Your task to perform on an android device: Show the shopping cart on newegg. Add "bose soundsport free" to the cart on newegg Image 0: 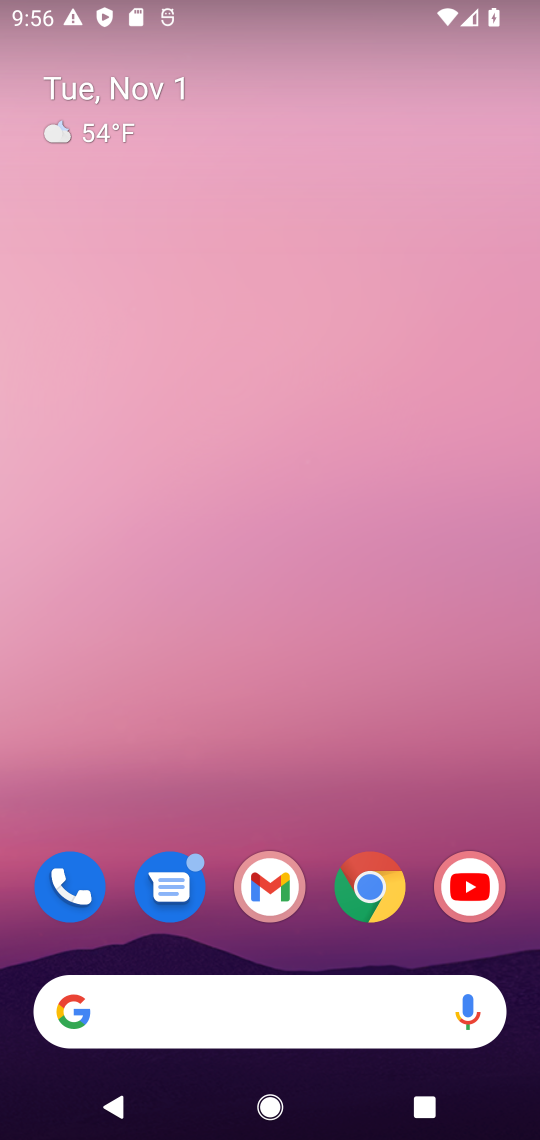
Step 0: drag from (323, 943) to (321, 195)
Your task to perform on an android device: Show the shopping cart on newegg. Add "bose soundsport free" to the cart on newegg Image 1: 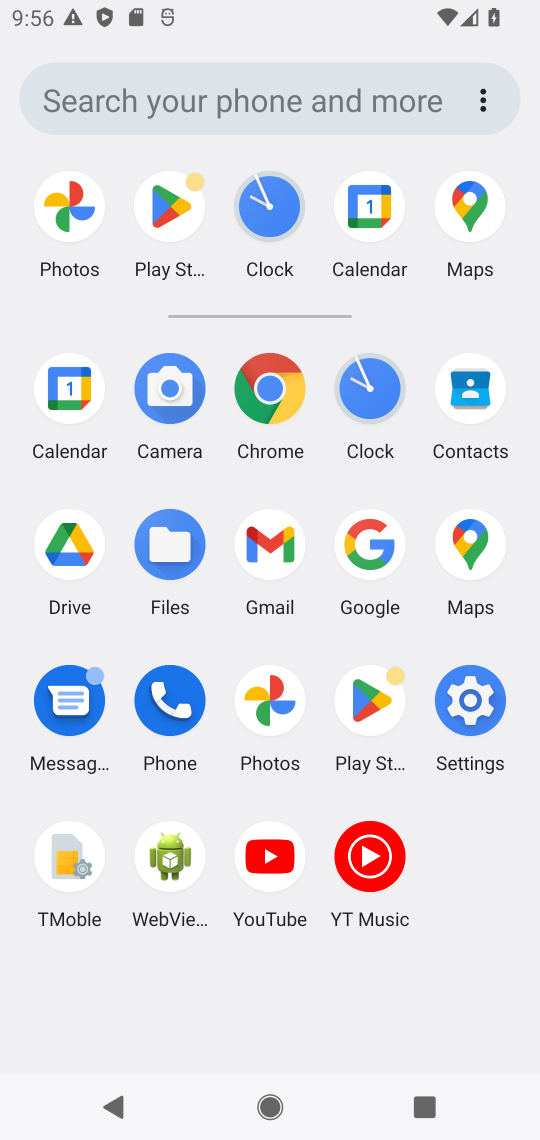
Step 1: click (397, 538)
Your task to perform on an android device: Show the shopping cart on newegg. Add "bose soundsport free" to the cart on newegg Image 2: 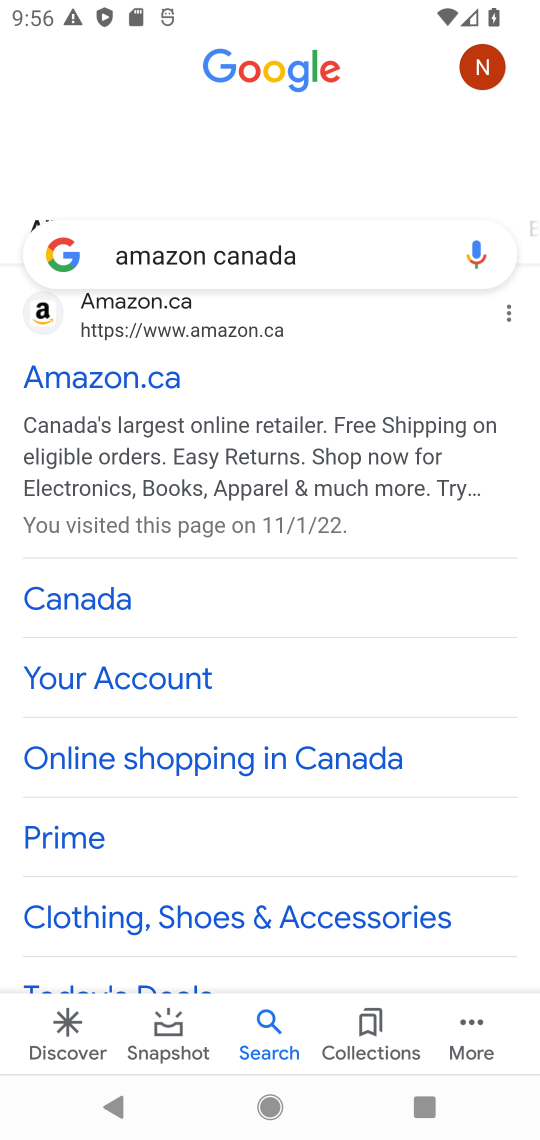
Step 2: click (80, 395)
Your task to perform on an android device: Show the shopping cart on newegg. Add "bose soundsport free" to the cart on newegg Image 3: 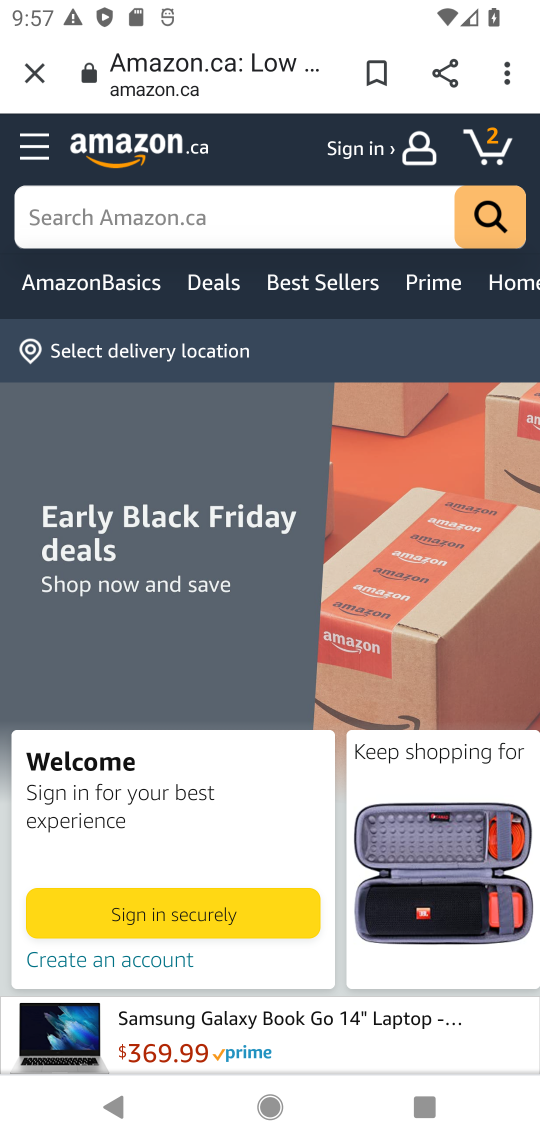
Step 3: press back button
Your task to perform on an android device: Show the shopping cart on newegg. Add "bose soundsport free" to the cart on newegg Image 4: 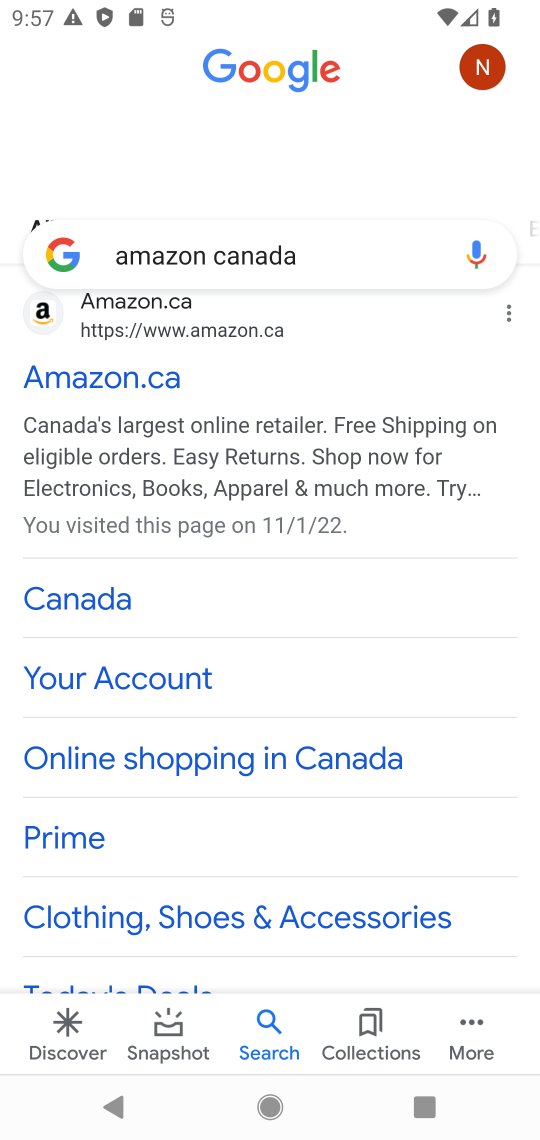
Step 4: press back button
Your task to perform on an android device: Show the shopping cart on newegg. Add "bose soundsport free" to the cart on newegg Image 5: 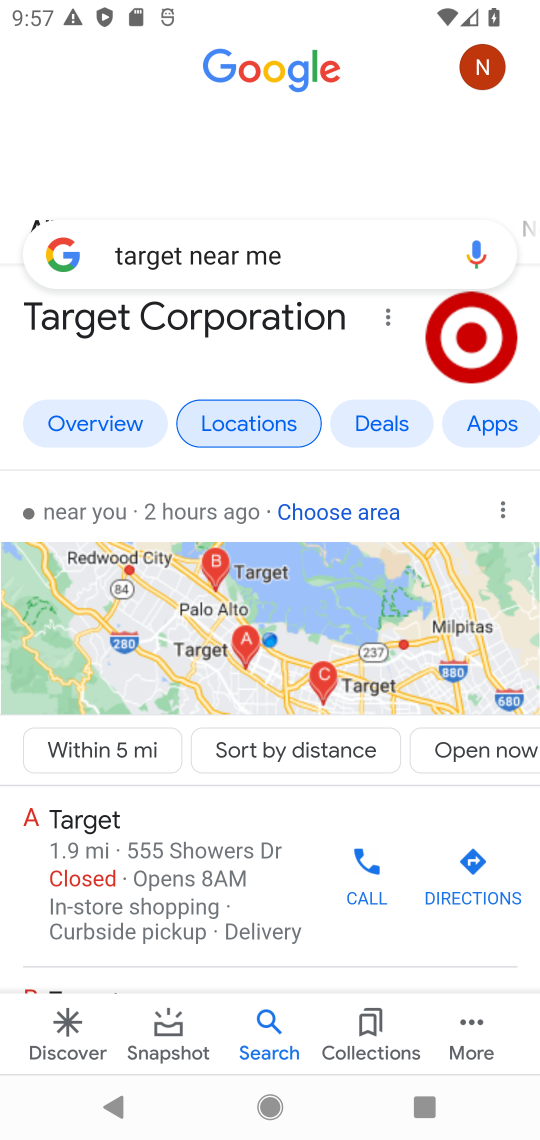
Step 5: click (354, 251)
Your task to perform on an android device: Show the shopping cart on newegg. Add "bose soundsport free" to the cart on newegg Image 6: 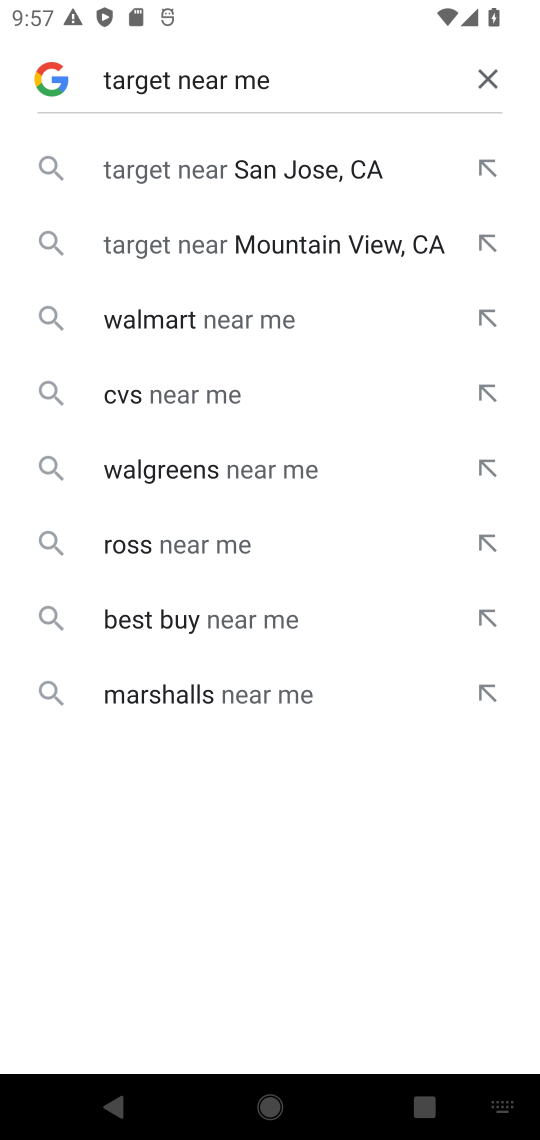
Step 6: click (491, 84)
Your task to perform on an android device: Show the shopping cart on newegg. Add "bose soundsport free" to the cart on newegg Image 7: 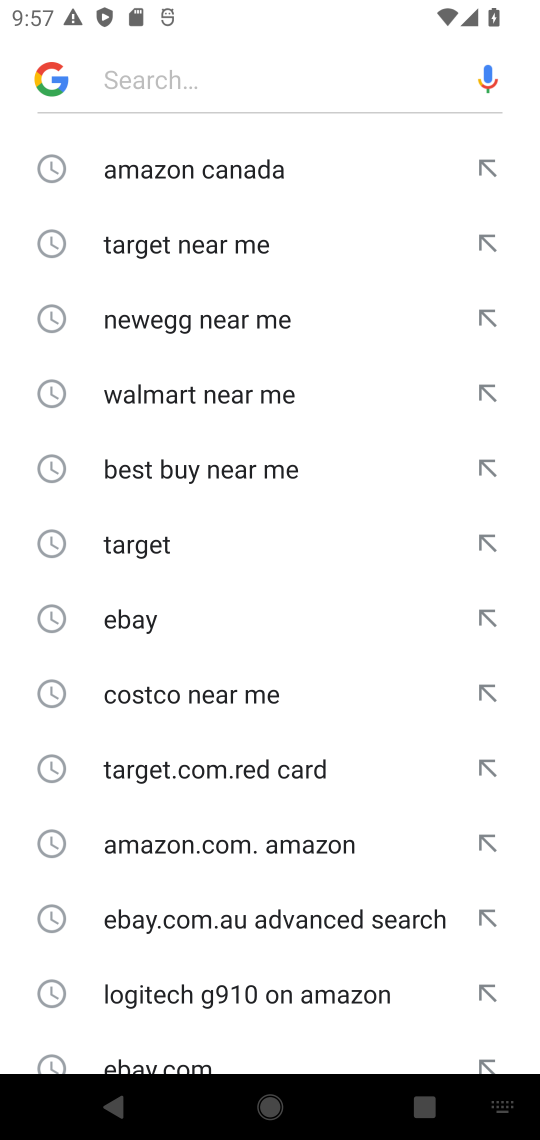
Step 7: click (178, 308)
Your task to perform on an android device: Show the shopping cart on newegg. Add "bose soundsport free" to the cart on newegg Image 8: 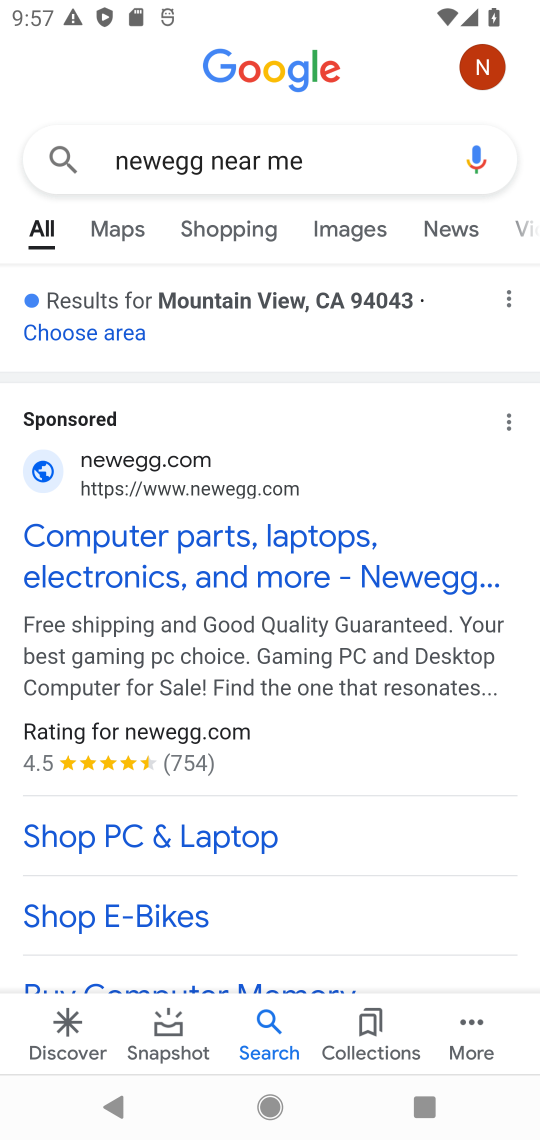
Step 8: drag from (156, 670) to (169, 410)
Your task to perform on an android device: Show the shopping cart on newegg. Add "bose soundsport free" to the cart on newegg Image 9: 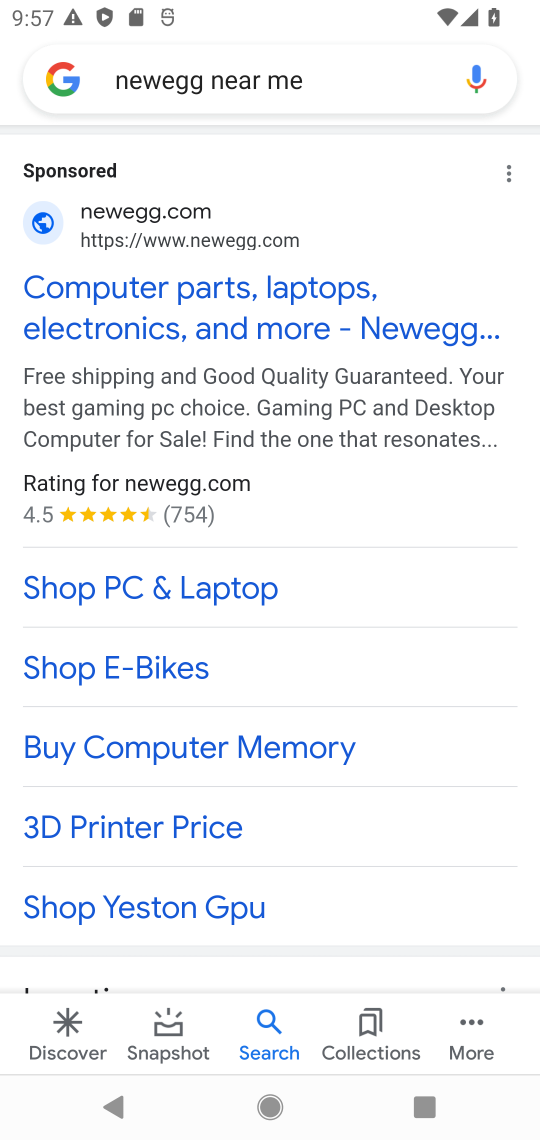
Step 9: drag from (168, 821) to (278, 422)
Your task to perform on an android device: Show the shopping cart on newegg. Add "bose soundsport free" to the cart on newegg Image 10: 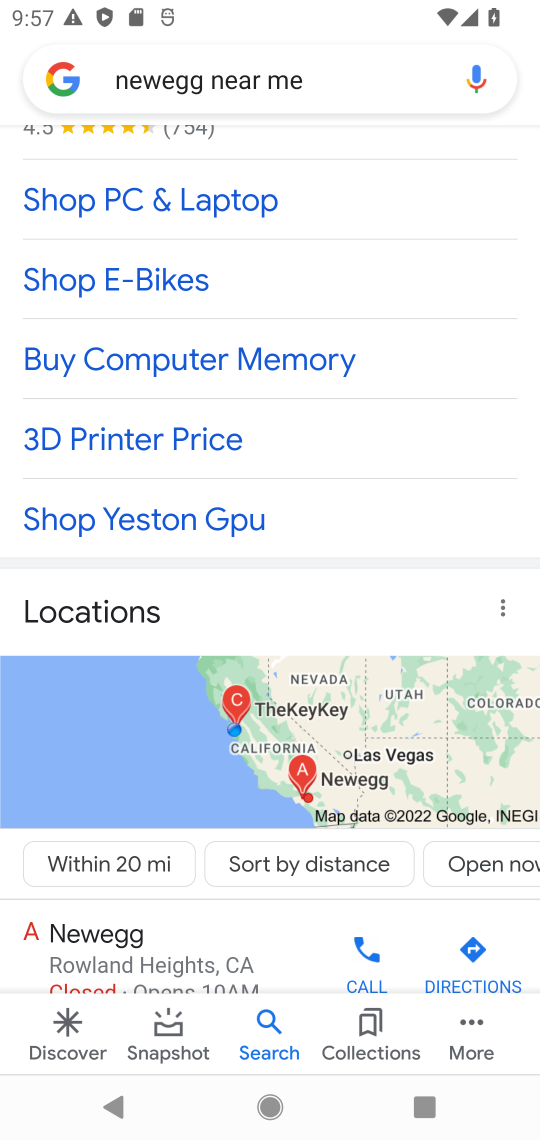
Step 10: drag from (268, 872) to (216, 350)
Your task to perform on an android device: Show the shopping cart on newegg. Add "bose soundsport free" to the cart on newegg Image 11: 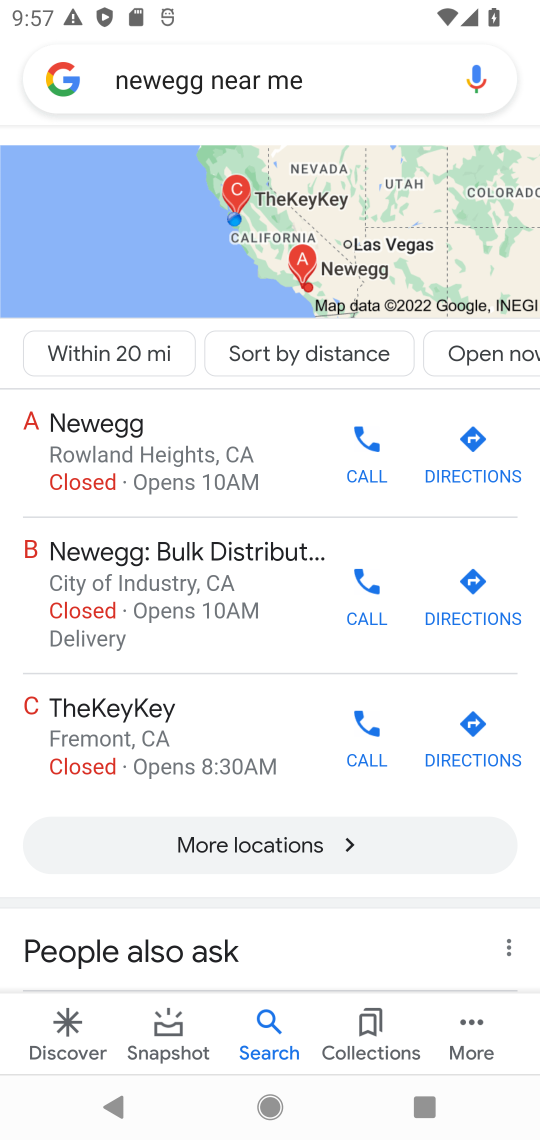
Step 11: drag from (150, 839) to (184, 319)
Your task to perform on an android device: Show the shopping cart on newegg. Add "bose soundsport free" to the cart on newegg Image 12: 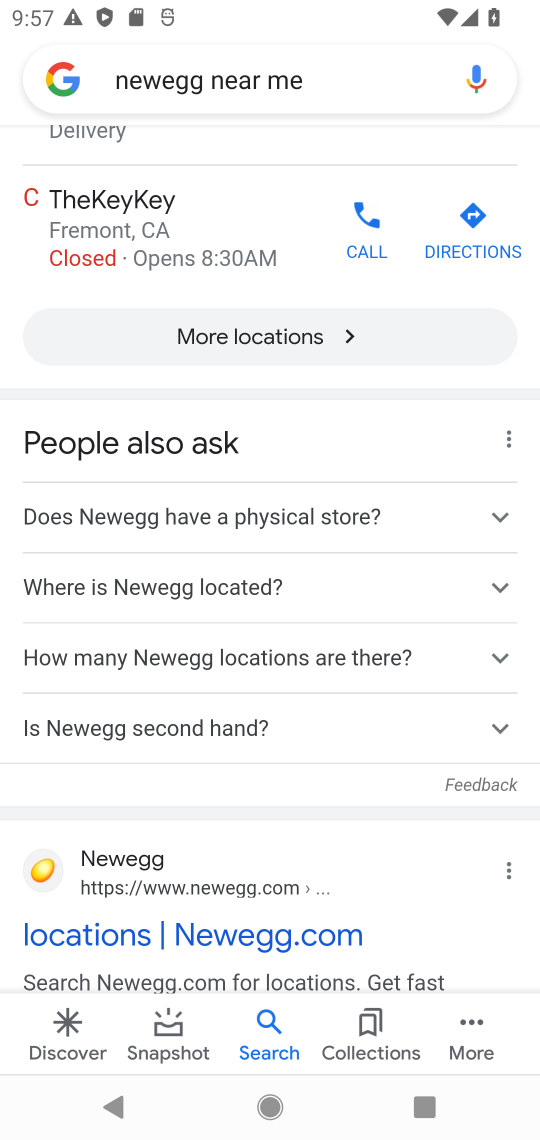
Step 12: click (33, 861)
Your task to perform on an android device: Show the shopping cart on newegg. Add "bose soundsport free" to the cart on newegg Image 13: 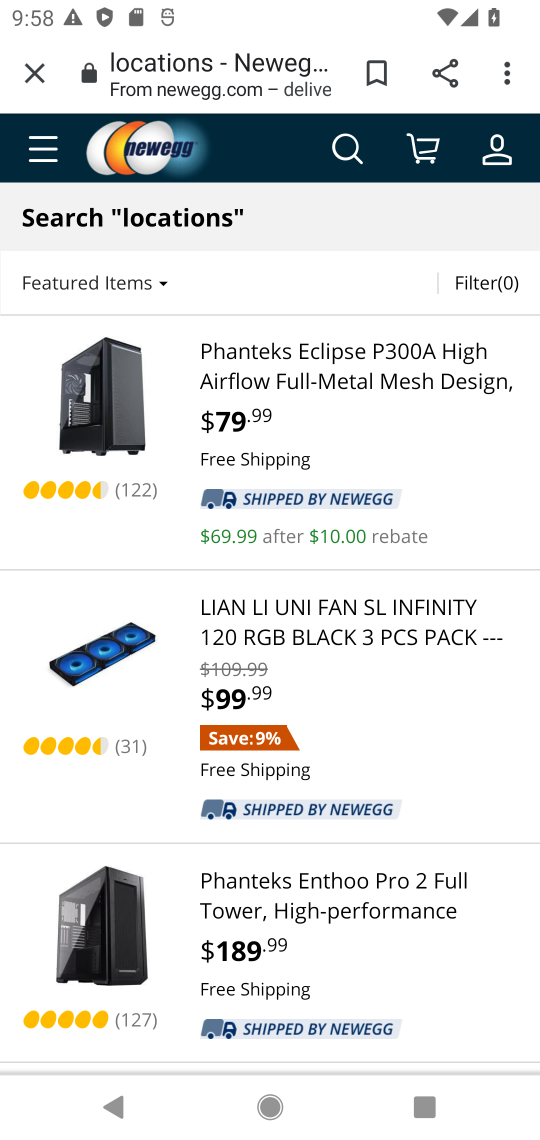
Step 13: click (350, 158)
Your task to perform on an android device: Show the shopping cart on newegg. Add "bose soundsport free" to the cart on newegg Image 14: 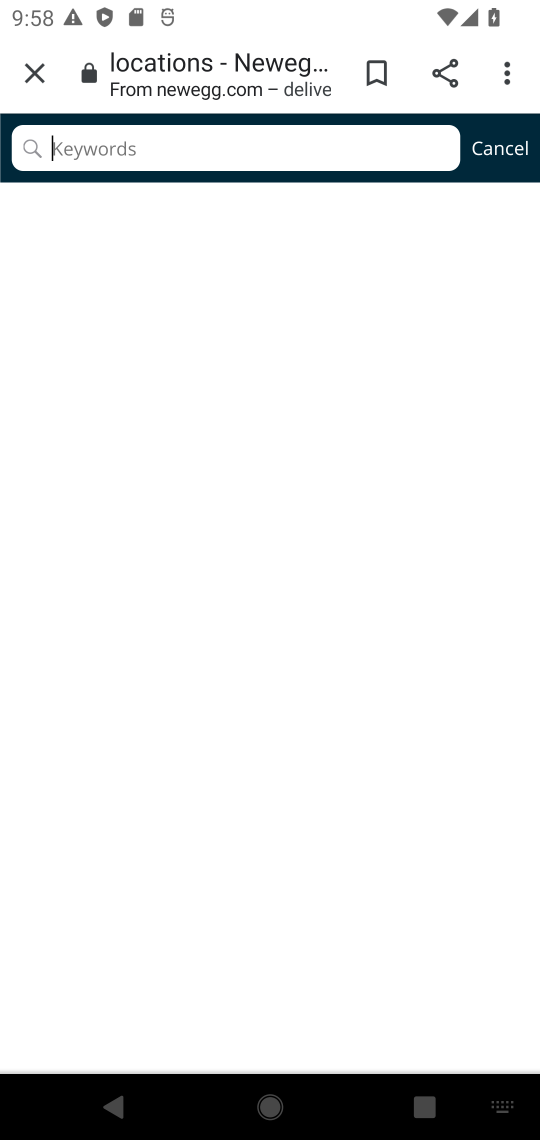
Step 14: click (275, 144)
Your task to perform on an android device: Show the shopping cart on newegg. Add "bose soundsport free" to the cart on newegg Image 15: 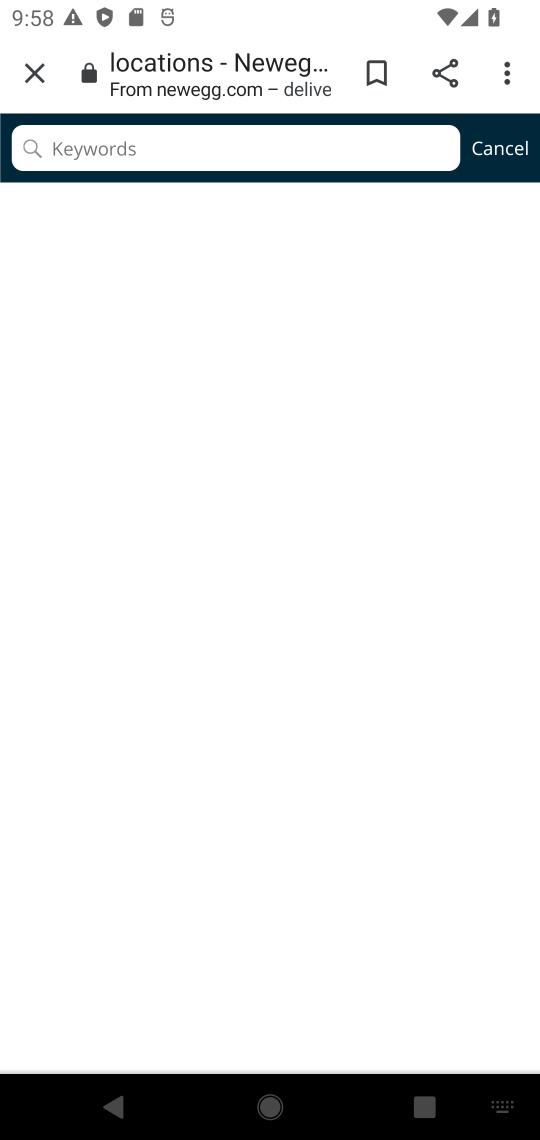
Step 15: type ""
Your task to perform on an android device: Show the shopping cart on newegg. Add "bose soundsport free" to the cart on newegg Image 16: 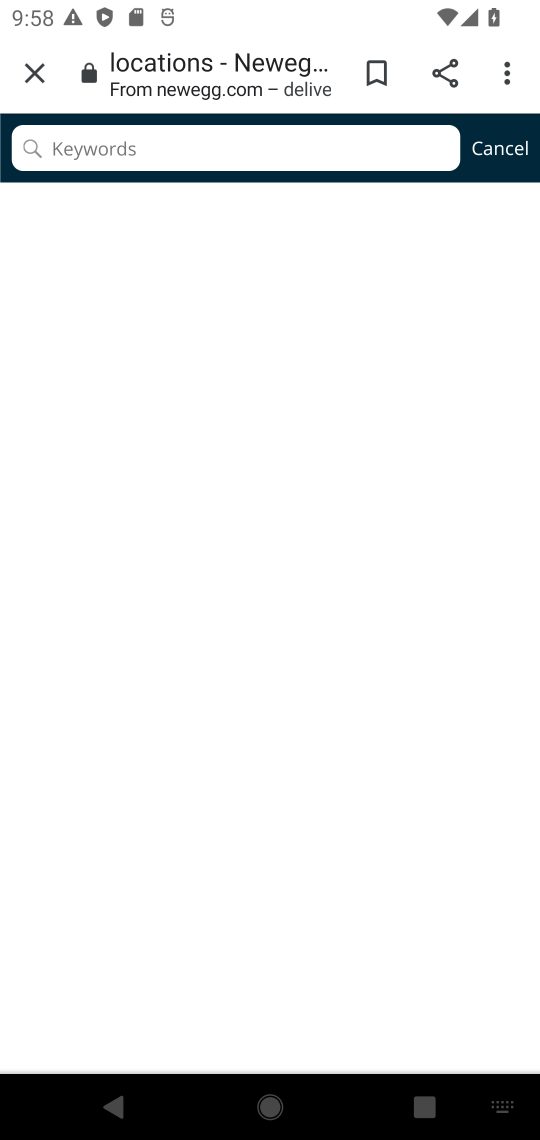
Step 16: type "bose soundsport free "
Your task to perform on an android device: Show the shopping cart on newegg. Add "bose soundsport free" to the cart on newegg Image 17: 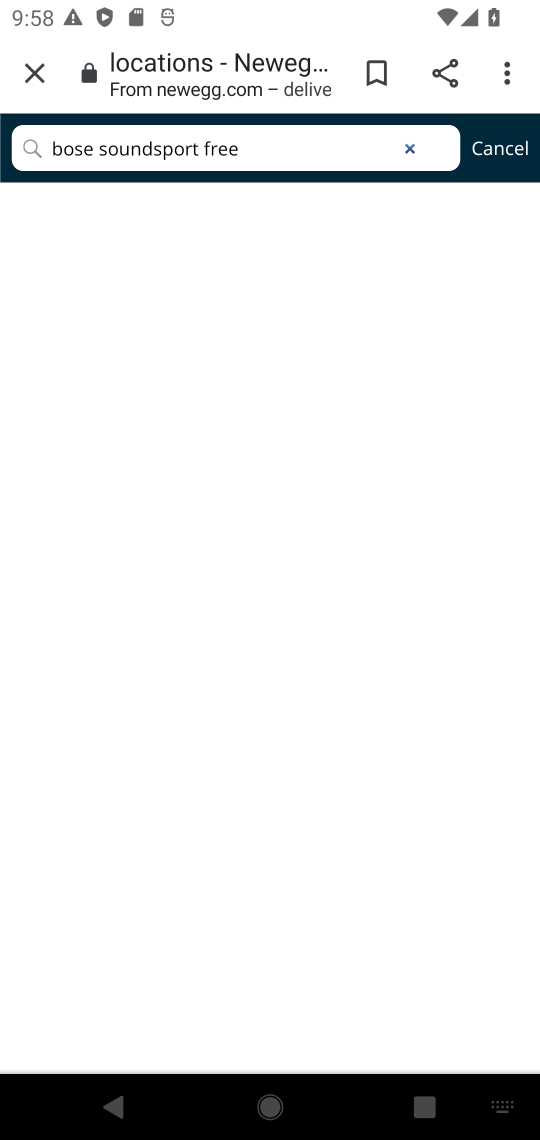
Step 17: task complete